Your task to perform on an android device: clear history in the chrome app Image 0: 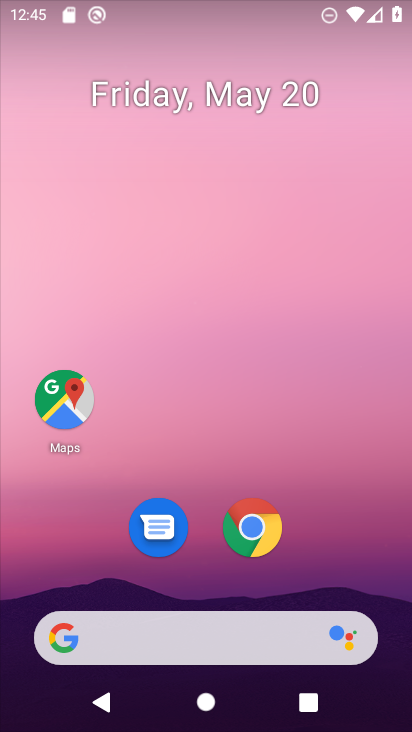
Step 0: click (249, 537)
Your task to perform on an android device: clear history in the chrome app Image 1: 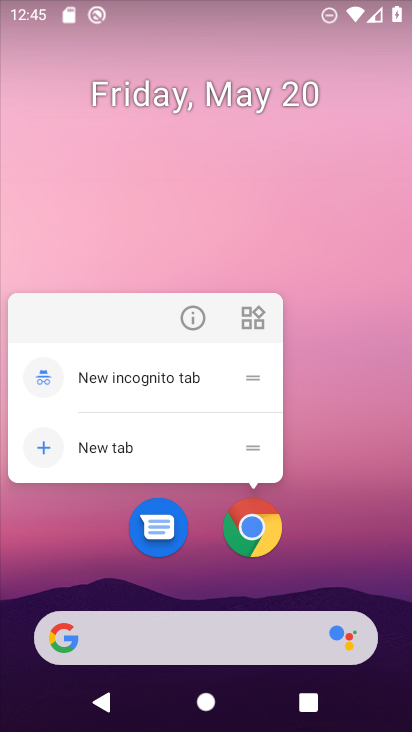
Step 1: click (249, 523)
Your task to perform on an android device: clear history in the chrome app Image 2: 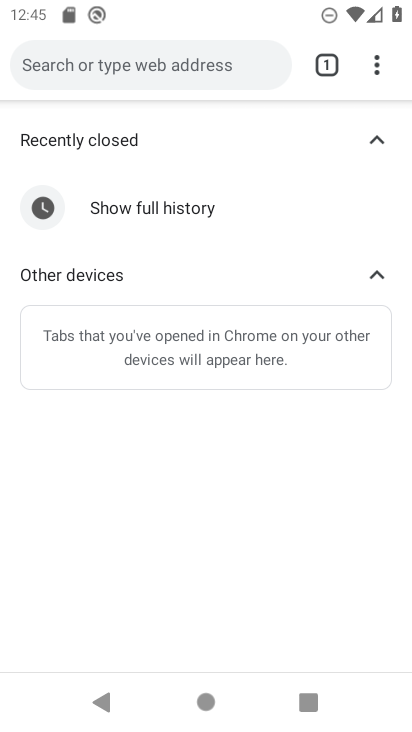
Step 2: click (371, 59)
Your task to perform on an android device: clear history in the chrome app Image 3: 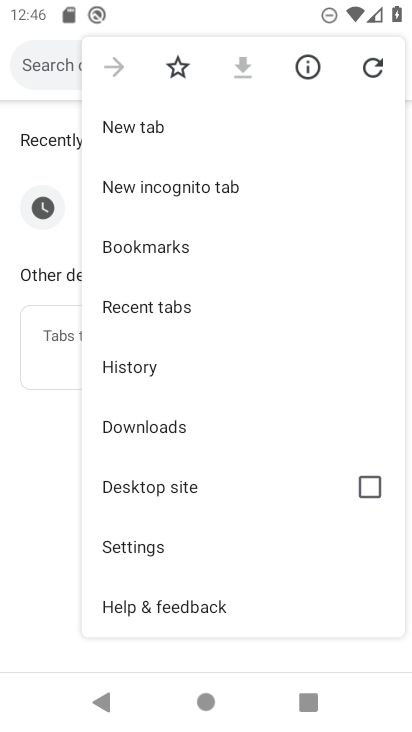
Step 3: click (137, 359)
Your task to perform on an android device: clear history in the chrome app Image 4: 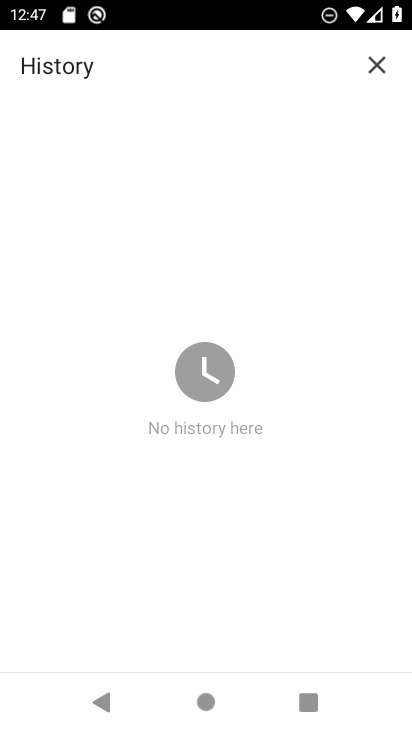
Step 4: task complete